Your task to perform on an android device: add a contact in the contacts app Image 0: 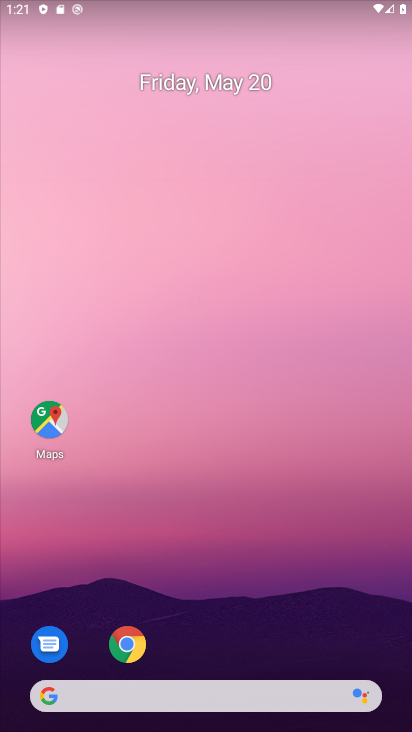
Step 0: drag from (214, 629) to (254, 107)
Your task to perform on an android device: add a contact in the contacts app Image 1: 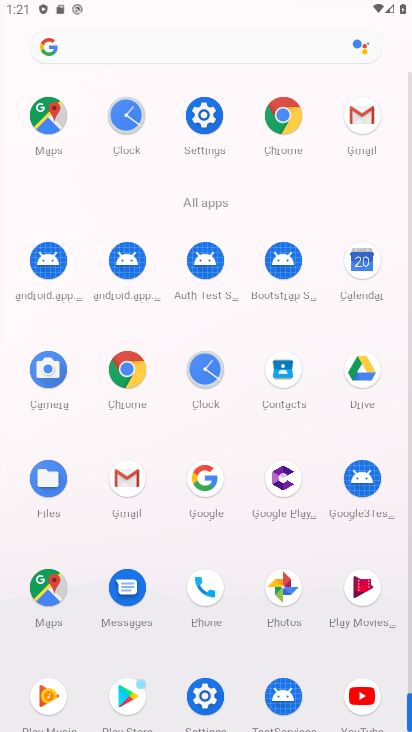
Step 1: click (290, 361)
Your task to perform on an android device: add a contact in the contacts app Image 2: 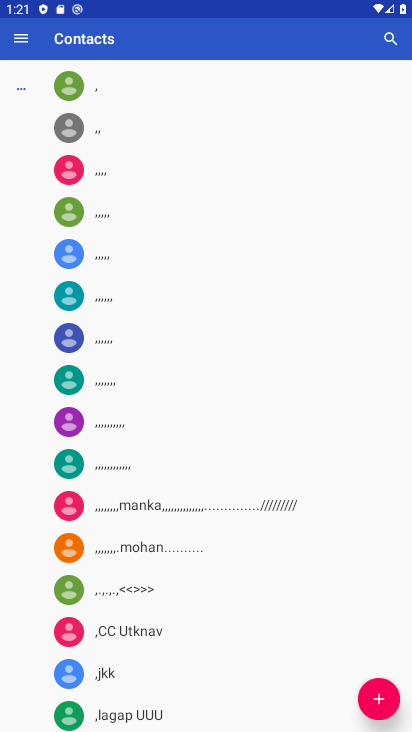
Step 2: click (361, 701)
Your task to perform on an android device: add a contact in the contacts app Image 3: 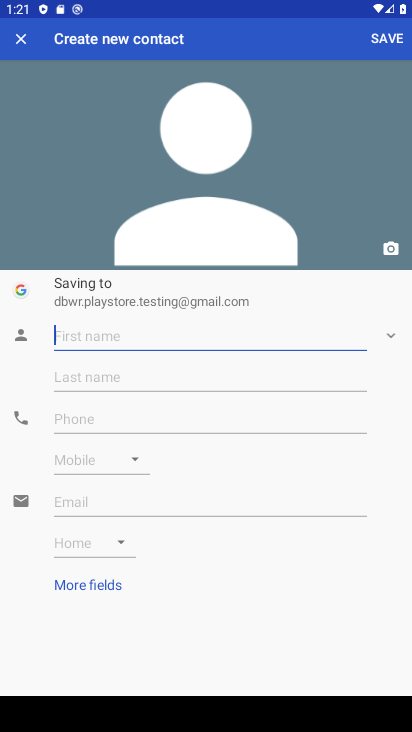
Step 3: type "xcvbb"
Your task to perform on an android device: add a contact in the contacts app Image 4: 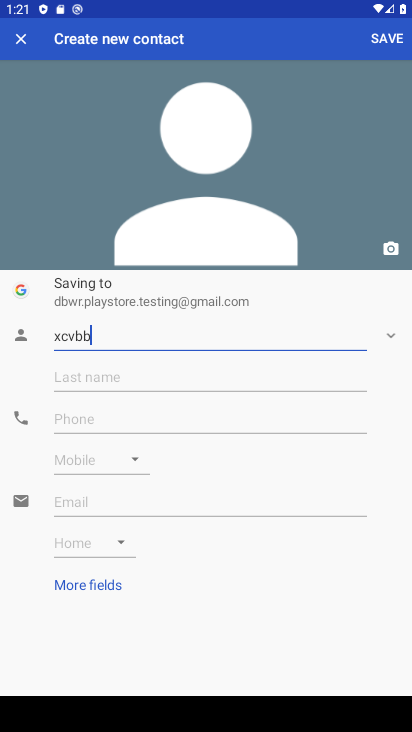
Step 4: click (372, 37)
Your task to perform on an android device: add a contact in the contacts app Image 5: 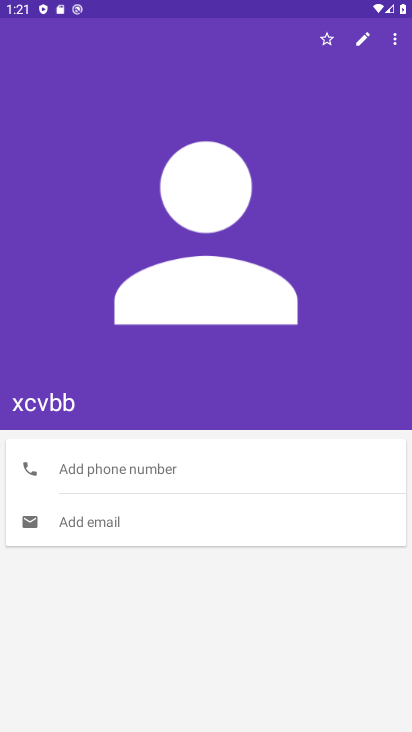
Step 5: task complete